Your task to perform on an android device: turn on improve location accuracy Image 0: 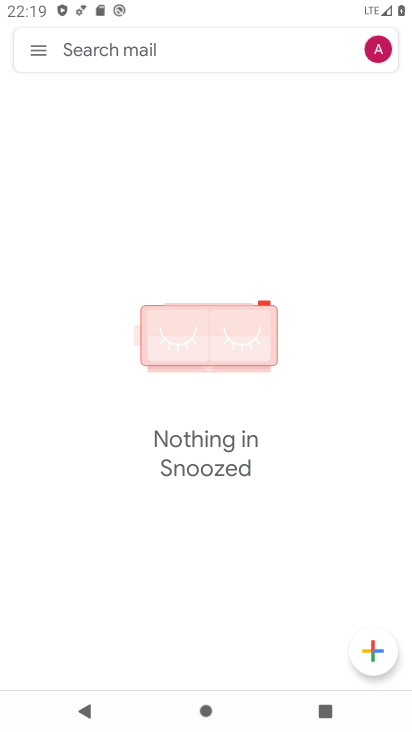
Step 0: press home button
Your task to perform on an android device: turn on improve location accuracy Image 1: 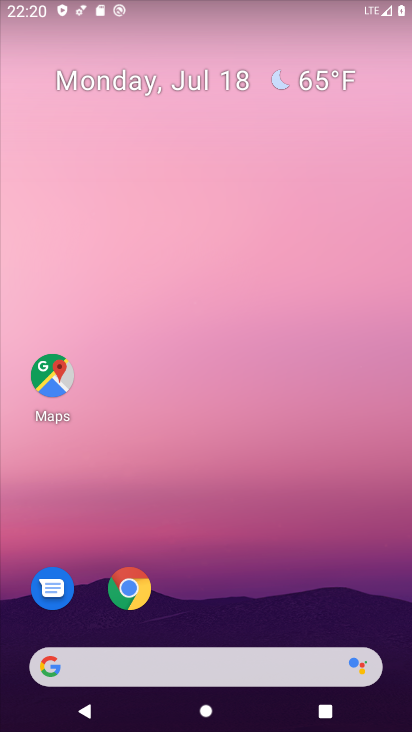
Step 1: drag from (176, 619) to (244, 150)
Your task to perform on an android device: turn on improve location accuracy Image 2: 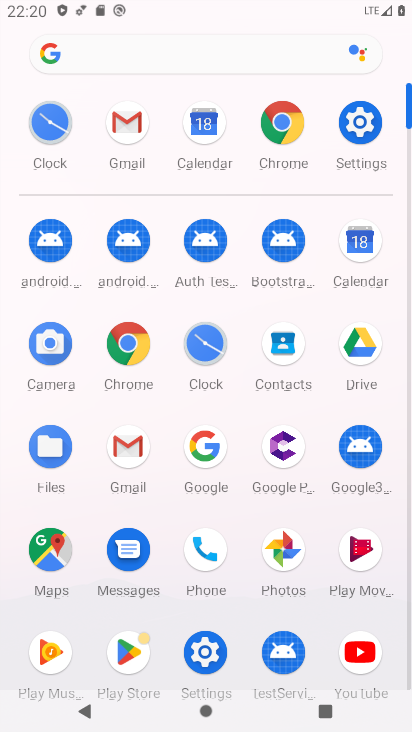
Step 2: click (373, 116)
Your task to perform on an android device: turn on improve location accuracy Image 3: 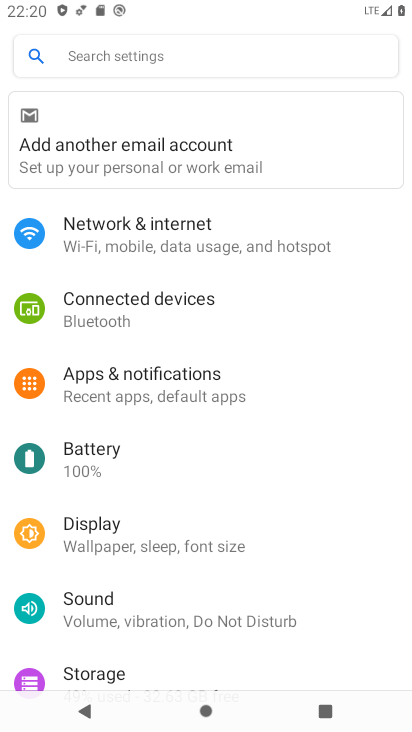
Step 3: drag from (192, 640) to (225, 192)
Your task to perform on an android device: turn on improve location accuracy Image 4: 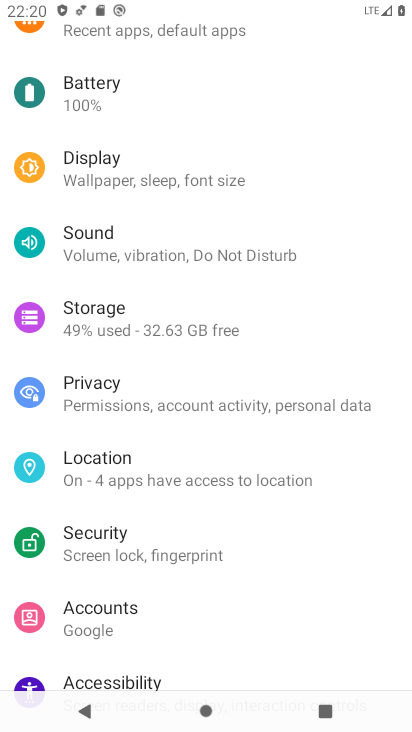
Step 4: click (100, 457)
Your task to perform on an android device: turn on improve location accuracy Image 5: 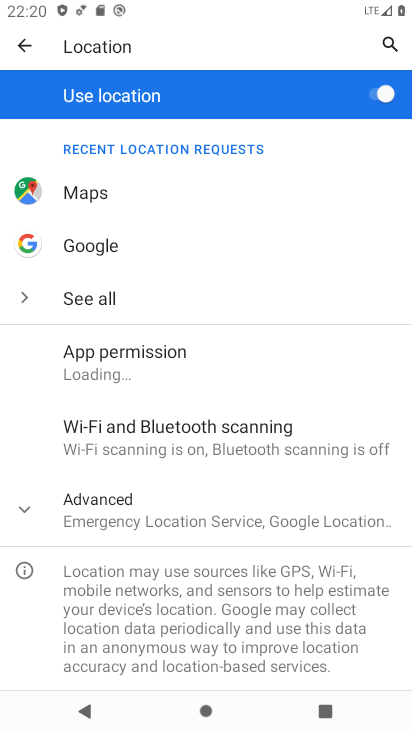
Step 5: click (26, 511)
Your task to perform on an android device: turn on improve location accuracy Image 6: 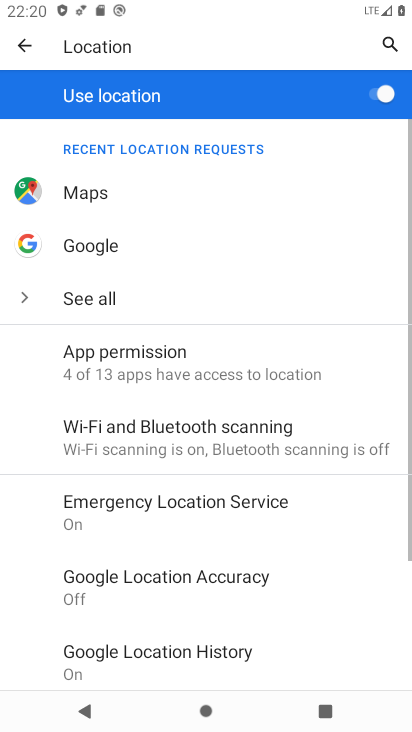
Step 6: click (110, 589)
Your task to perform on an android device: turn on improve location accuracy Image 7: 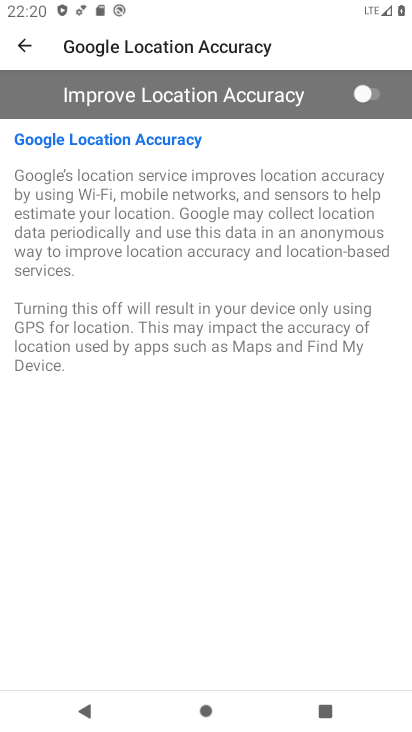
Step 7: click (367, 91)
Your task to perform on an android device: turn on improve location accuracy Image 8: 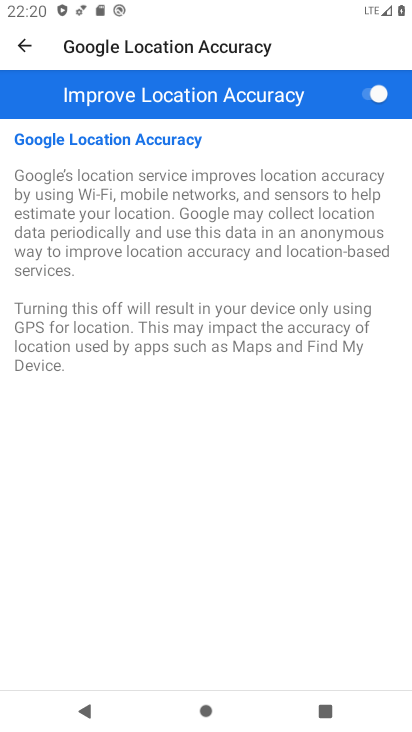
Step 8: task complete